Your task to perform on an android device: turn off improve location accuracy Image 0: 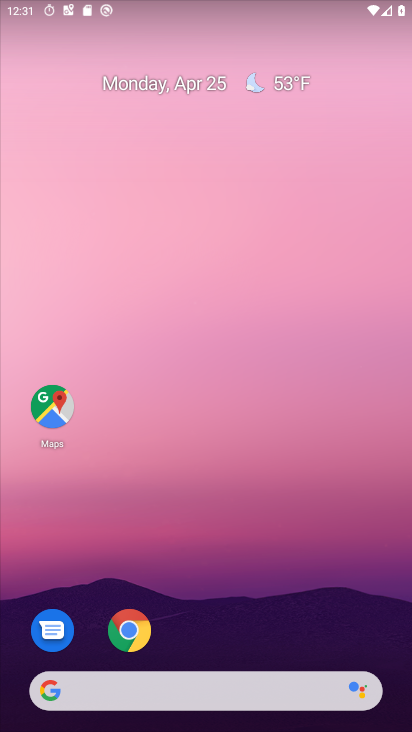
Step 0: drag from (215, 585) to (311, 306)
Your task to perform on an android device: turn off improve location accuracy Image 1: 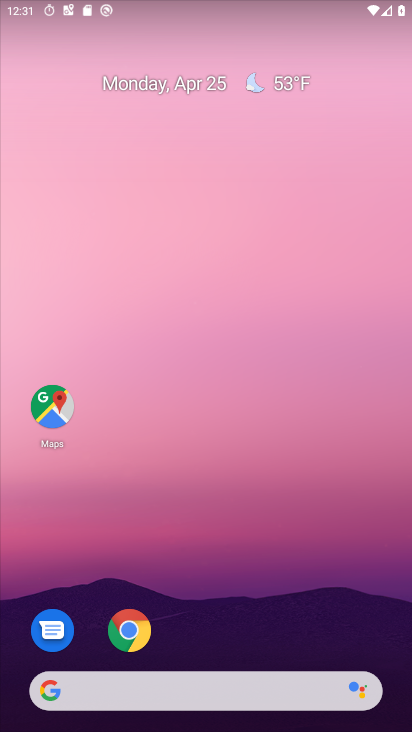
Step 1: drag from (191, 605) to (361, 7)
Your task to perform on an android device: turn off improve location accuracy Image 2: 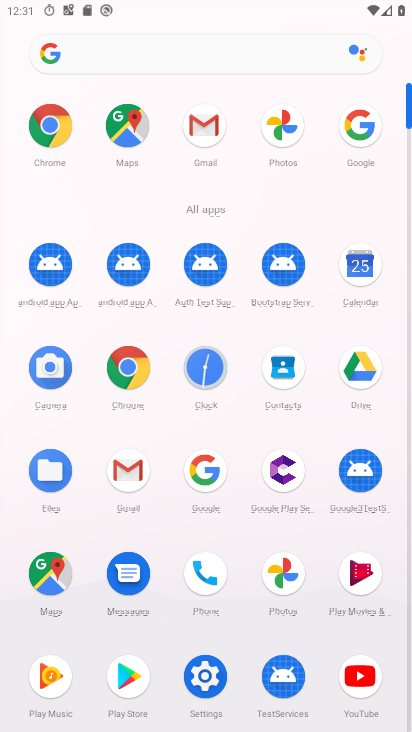
Step 2: click (211, 685)
Your task to perform on an android device: turn off improve location accuracy Image 3: 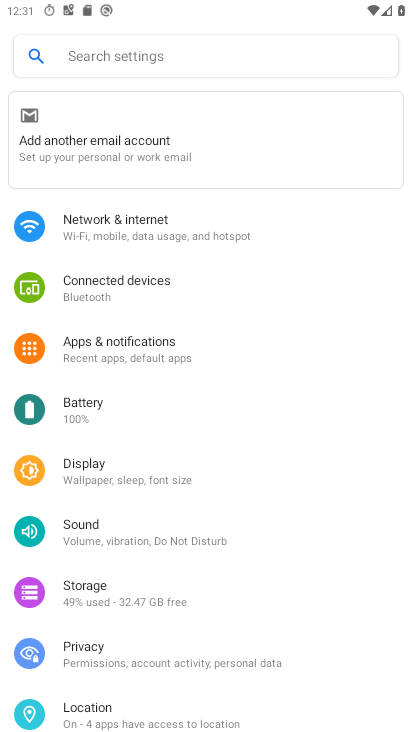
Step 3: drag from (186, 638) to (243, 323)
Your task to perform on an android device: turn off improve location accuracy Image 4: 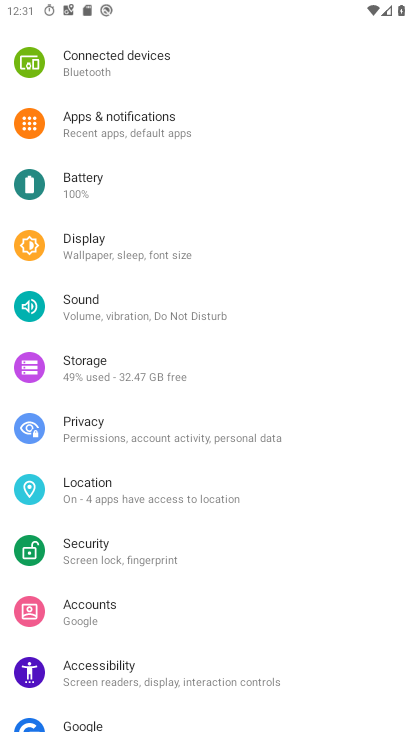
Step 4: click (87, 508)
Your task to perform on an android device: turn off improve location accuracy Image 5: 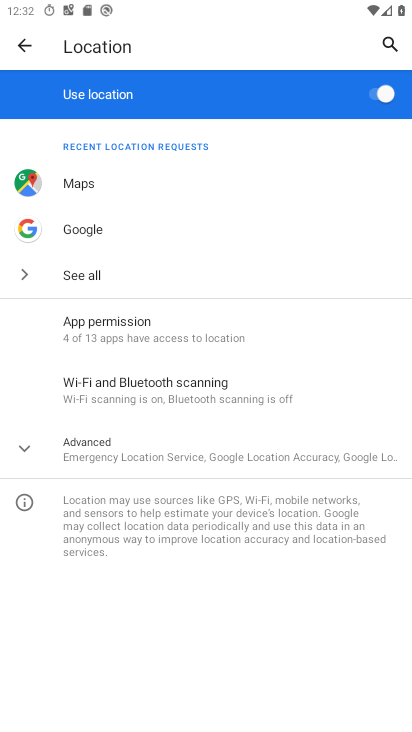
Step 5: click (96, 465)
Your task to perform on an android device: turn off improve location accuracy Image 6: 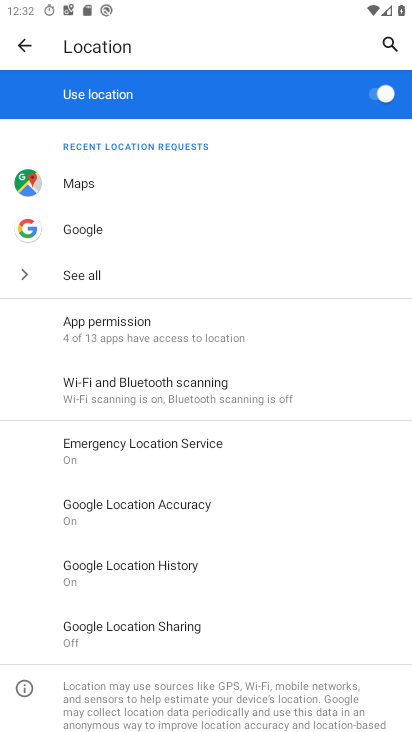
Step 6: click (200, 514)
Your task to perform on an android device: turn off improve location accuracy Image 7: 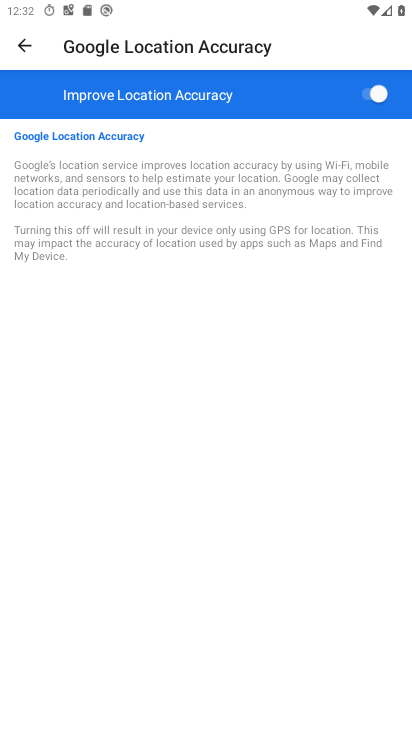
Step 7: drag from (343, 391) to (374, 290)
Your task to perform on an android device: turn off improve location accuracy Image 8: 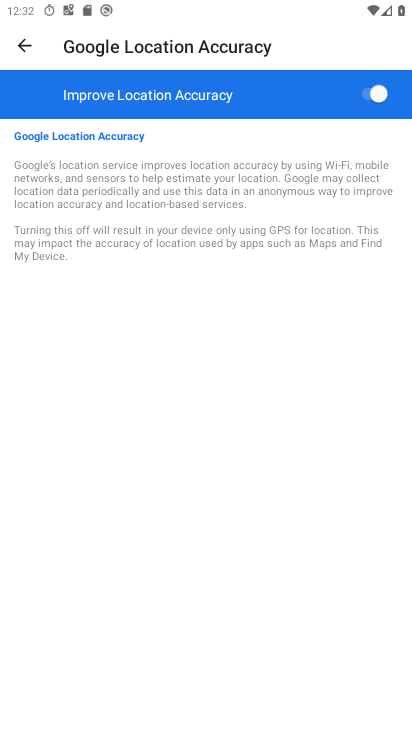
Step 8: click (374, 96)
Your task to perform on an android device: turn off improve location accuracy Image 9: 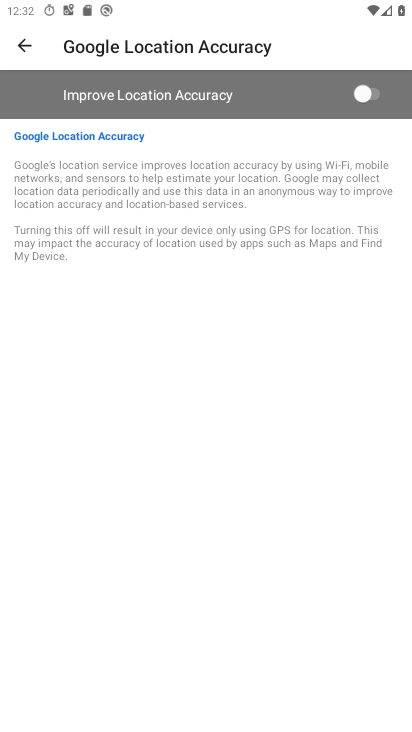
Step 9: task complete